Your task to perform on an android device: Show me recent news Image 0: 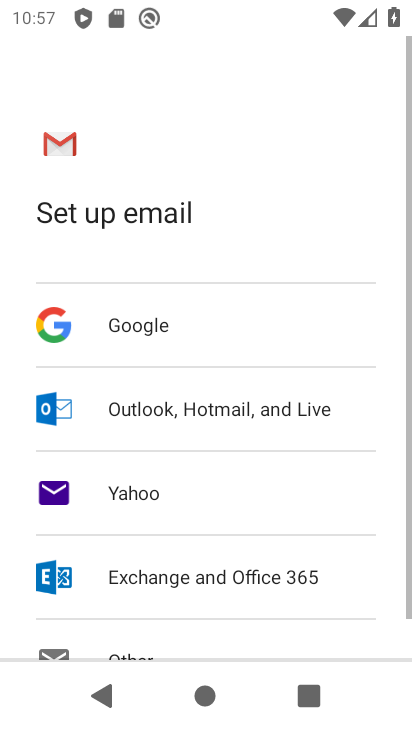
Step 0: press home button
Your task to perform on an android device: Show me recent news Image 1: 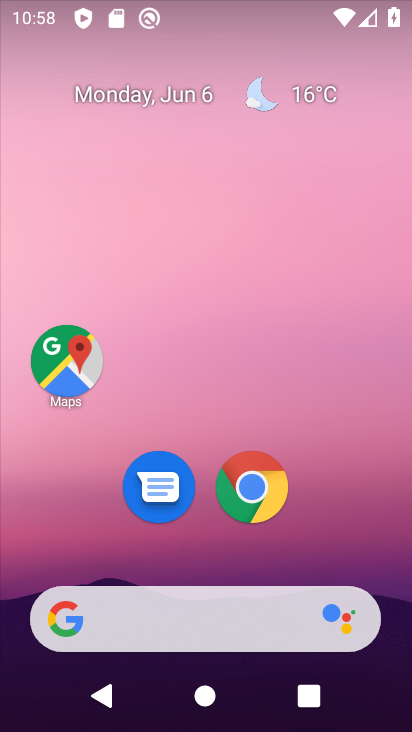
Step 1: drag from (293, 544) to (349, 100)
Your task to perform on an android device: Show me recent news Image 2: 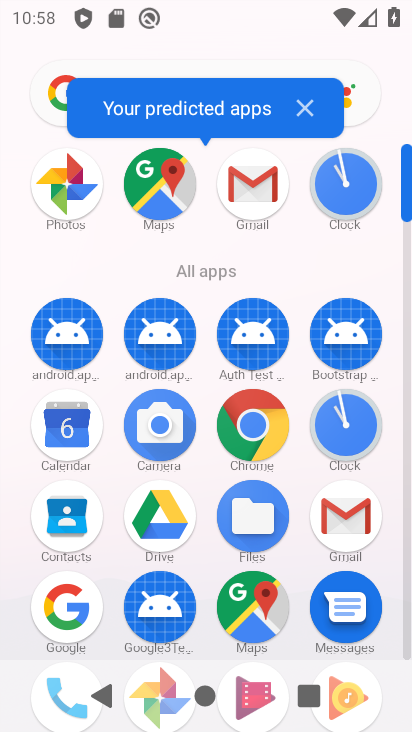
Step 2: click (74, 629)
Your task to perform on an android device: Show me recent news Image 3: 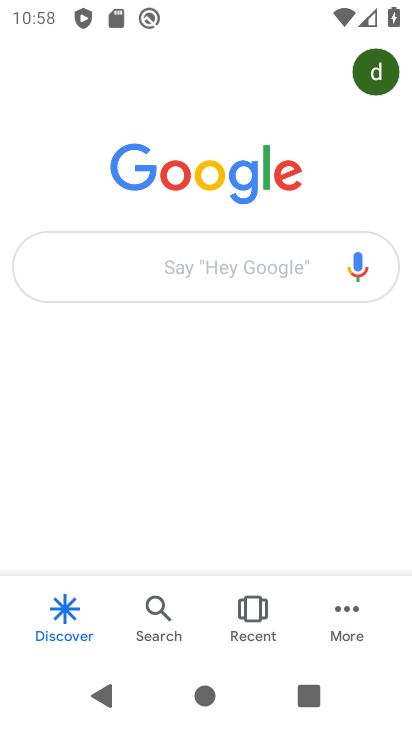
Step 3: click (190, 273)
Your task to perform on an android device: Show me recent news Image 4: 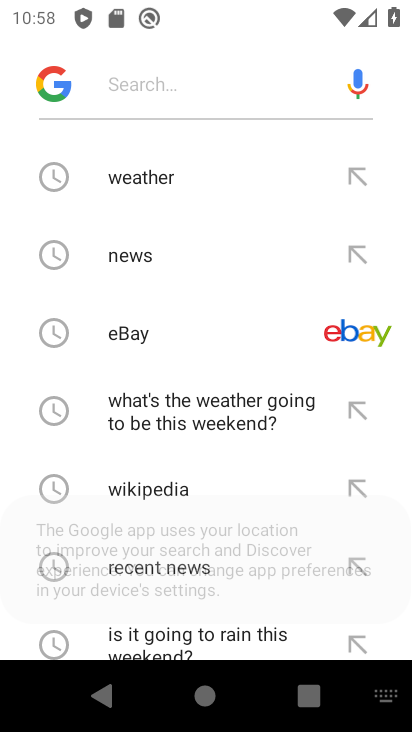
Step 4: drag from (194, 405) to (229, 83)
Your task to perform on an android device: Show me recent news Image 5: 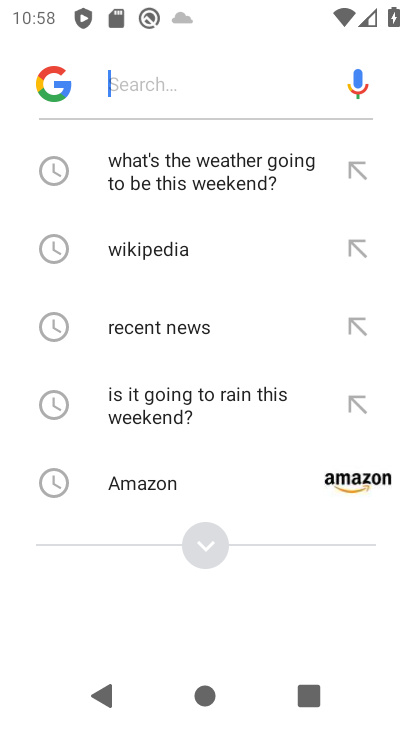
Step 5: click (218, 330)
Your task to perform on an android device: Show me recent news Image 6: 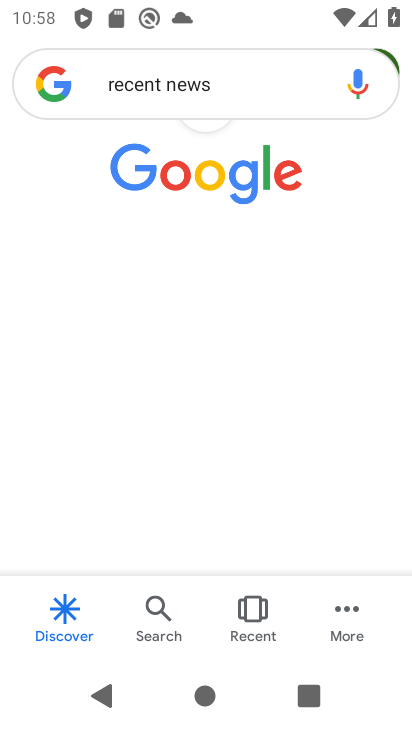
Step 6: task complete